Your task to perform on an android device: Is it going to rain this weekend? Image 0: 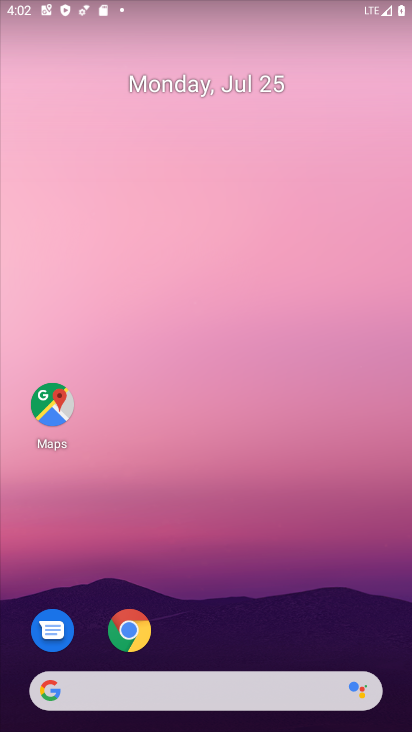
Step 0: drag from (235, 627) to (248, 180)
Your task to perform on an android device: Is it going to rain this weekend? Image 1: 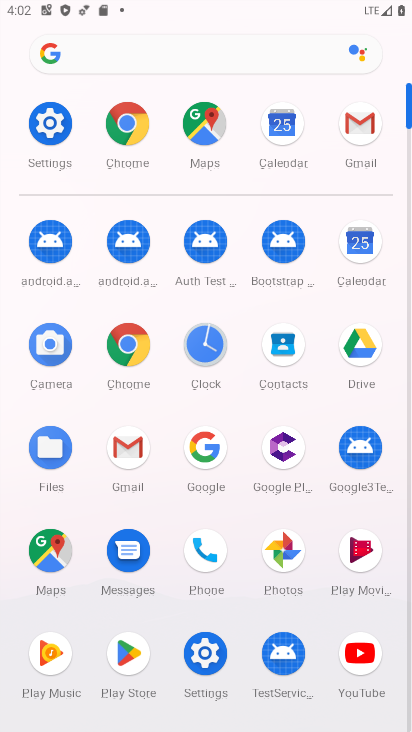
Step 1: click (110, 139)
Your task to perform on an android device: Is it going to rain this weekend? Image 2: 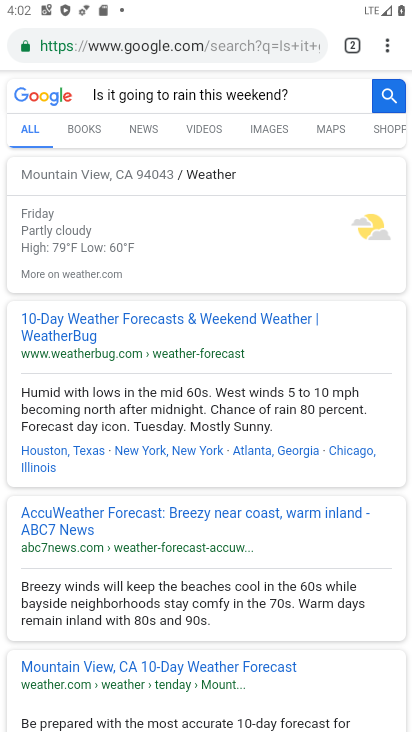
Step 2: task complete